Your task to perform on an android device: Go to Amazon Image 0: 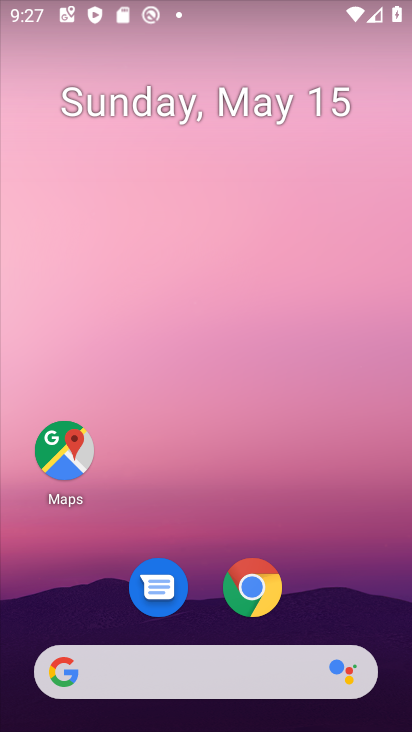
Step 0: drag from (378, 568) to (295, 41)
Your task to perform on an android device: Go to Amazon Image 1: 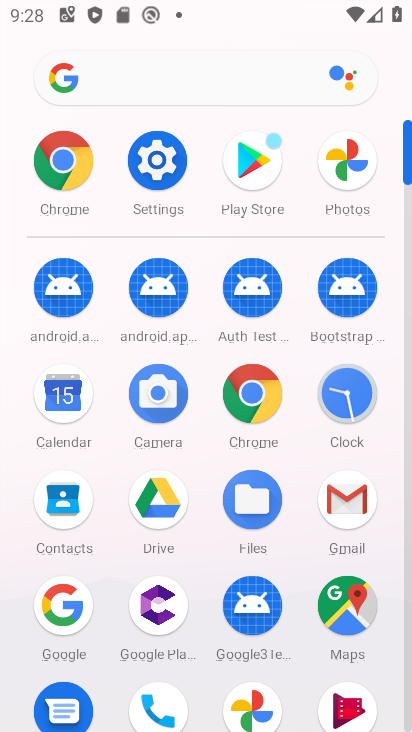
Step 1: click (41, 162)
Your task to perform on an android device: Go to Amazon Image 2: 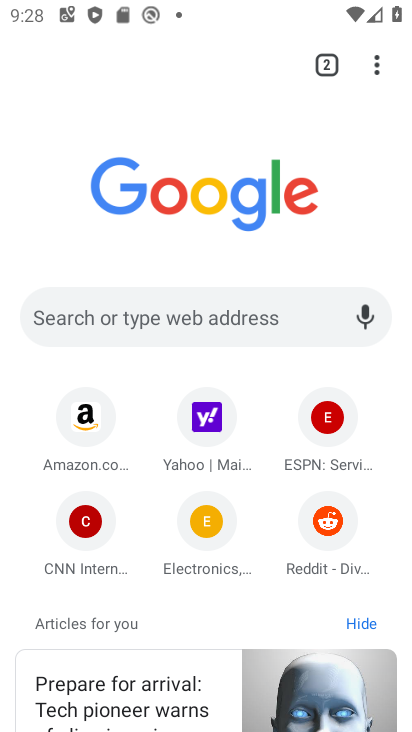
Step 2: click (94, 426)
Your task to perform on an android device: Go to Amazon Image 3: 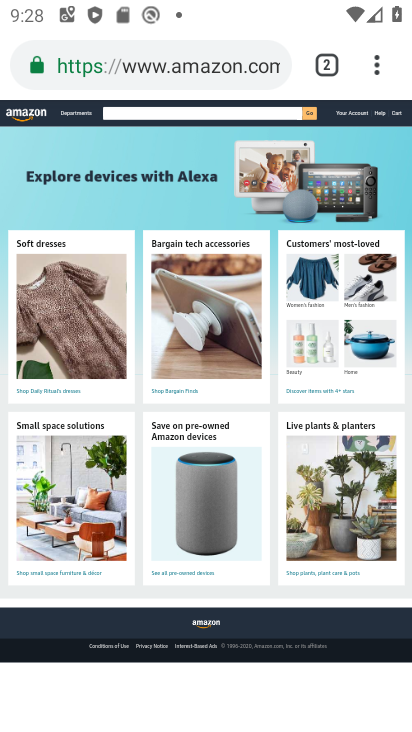
Step 3: task complete